Your task to perform on an android device: see sites visited before in the chrome app Image 0: 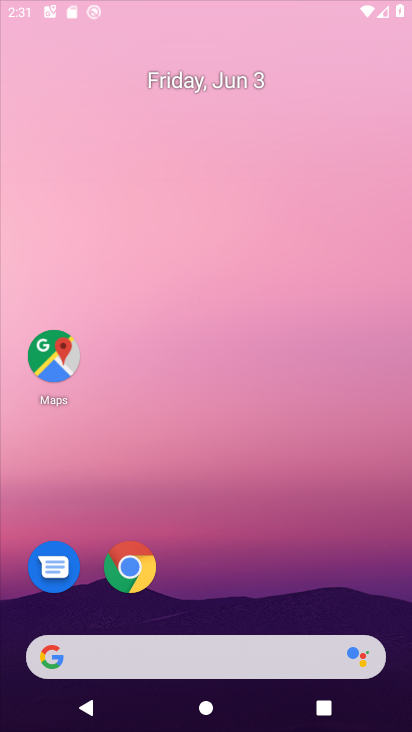
Step 0: click (336, 398)
Your task to perform on an android device: see sites visited before in the chrome app Image 1: 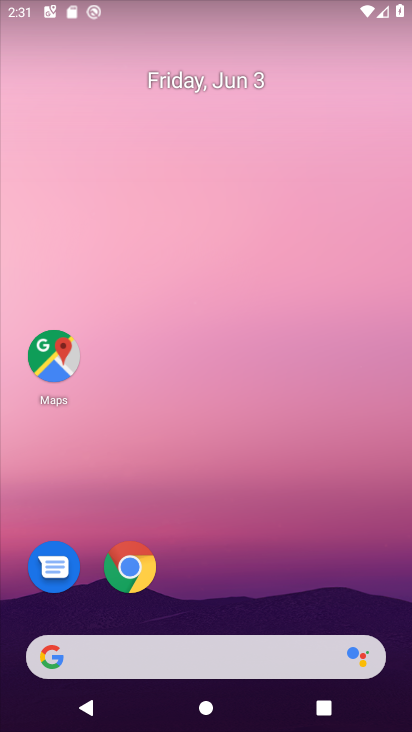
Step 1: drag from (199, 602) to (194, 251)
Your task to perform on an android device: see sites visited before in the chrome app Image 2: 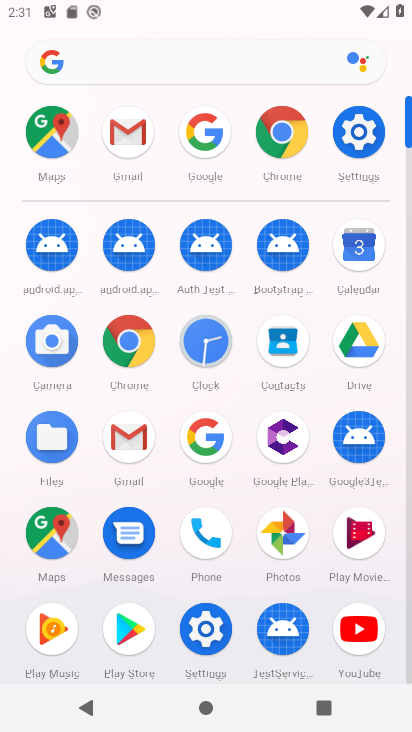
Step 2: click (272, 131)
Your task to perform on an android device: see sites visited before in the chrome app Image 3: 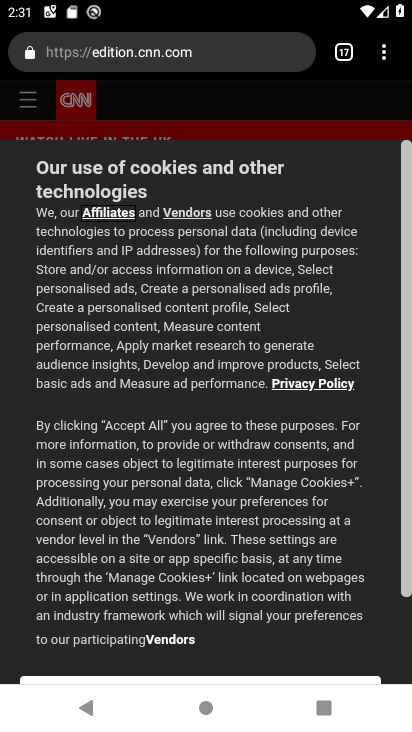
Step 3: click (364, 48)
Your task to perform on an android device: see sites visited before in the chrome app Image 4: 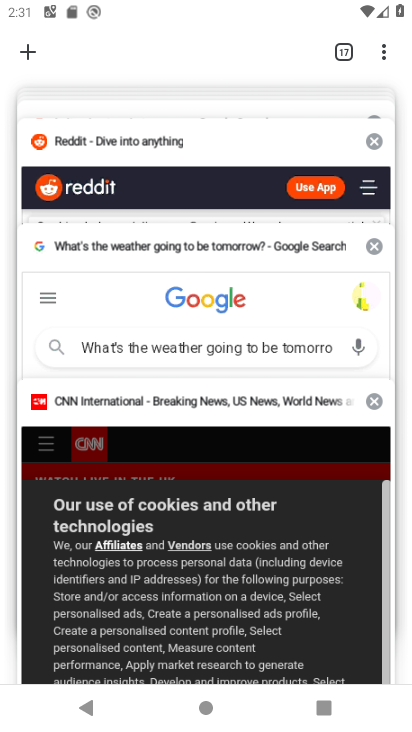
Step 4: click (12, 46)
Your task to perform on an android device: see sites visited before in the chrome app Image 5: 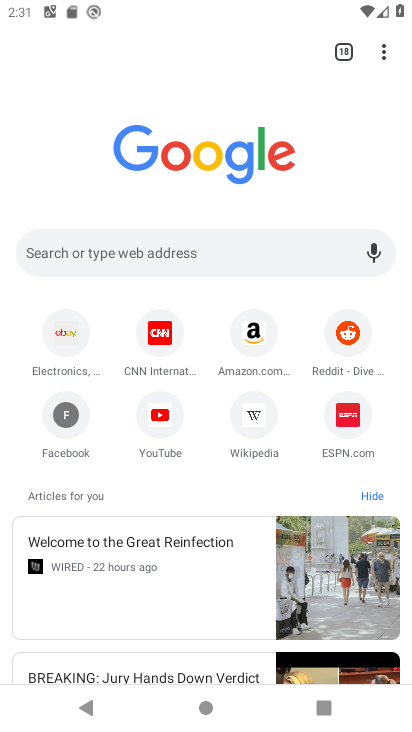
Step 5: click (376, 51)
Your task to perform on an android device: see sites visited before in the chrome app Image 6: 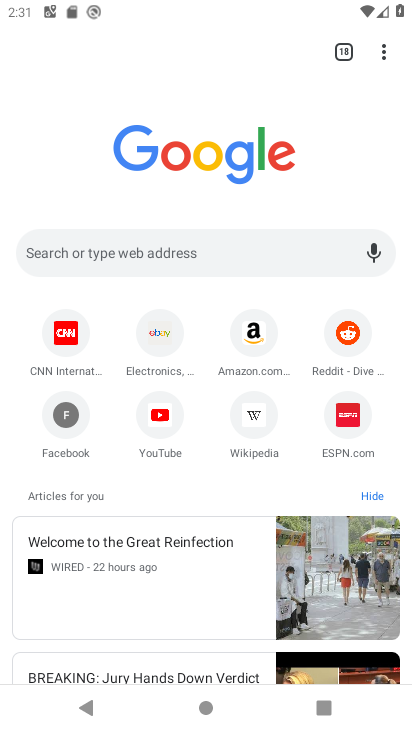
Step 6: click (383, 50)
Your task to perform on an android device: see sites visited before in the chrome app Image 7: 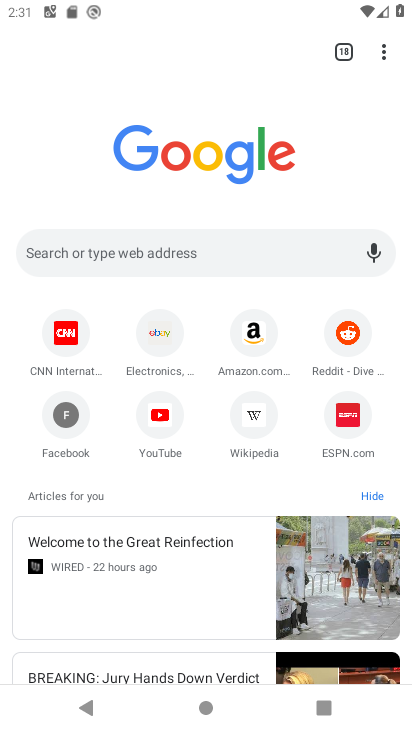
Step 7: click (396, 54)
Your task to perform on an android device: see sites visited before in the chrome app Image 8: 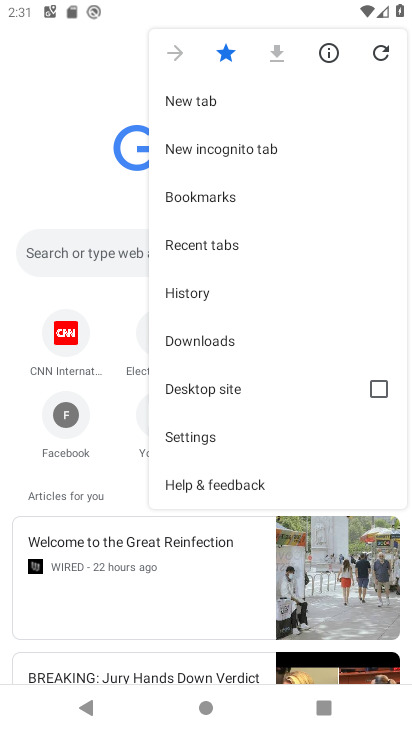
Step 8: click (390, 49)
Your task to perform on an android device: see sites visited before in the chrome app Image 9: 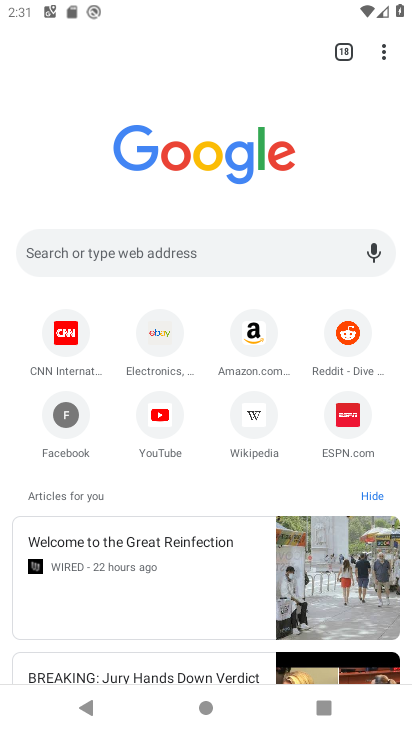
Step 9: click (390, 49)
Your task to perform on an android device: see sites visited before in the chrome app Image 10: 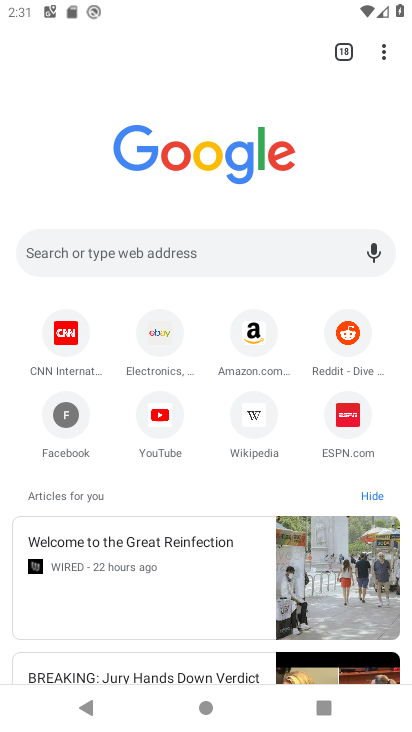
Step 10: click (390, 54)
Your task to perform on an android device: see sites visited before in the chrome app Image 11: 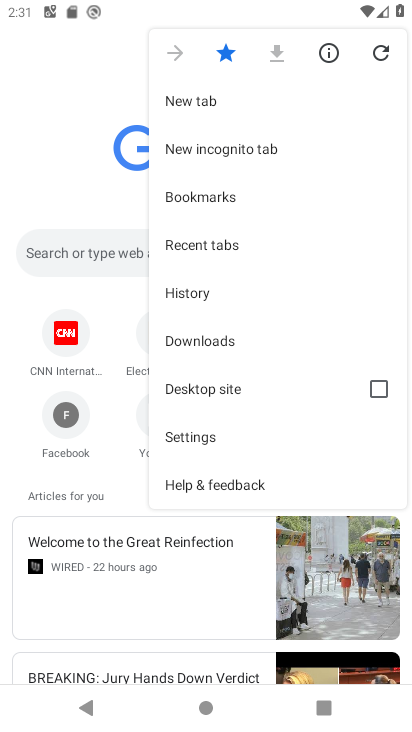
Step 11: drag from (206, 445) to (145, 230)
Your task to perform on an android device: see sites visited before in the chrome app Image 12: 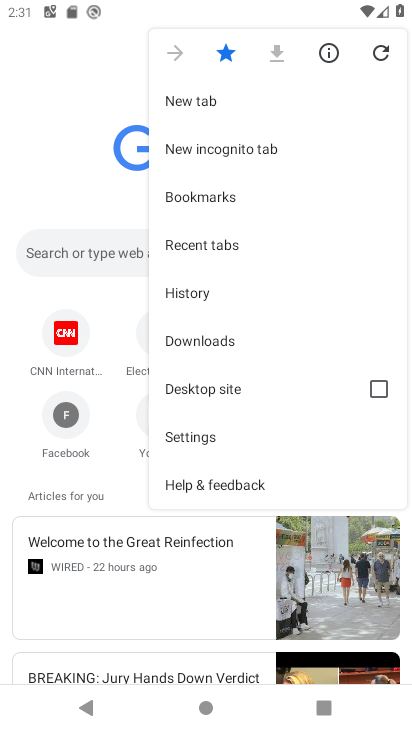
Step 12: click (235, 296)
Your task to perform on an android device: see sites visited before in the chrome app Image 13: 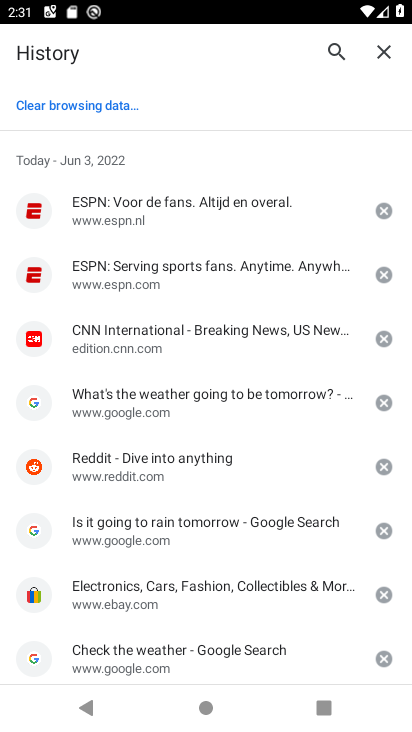
Step 13: task complete